Your task to perform on an android device: open app "LiveIn - Share Your Moment" (install if not already installed) and enter user name: "certifies@gmail.com" and password: "compartmented" Image 0: 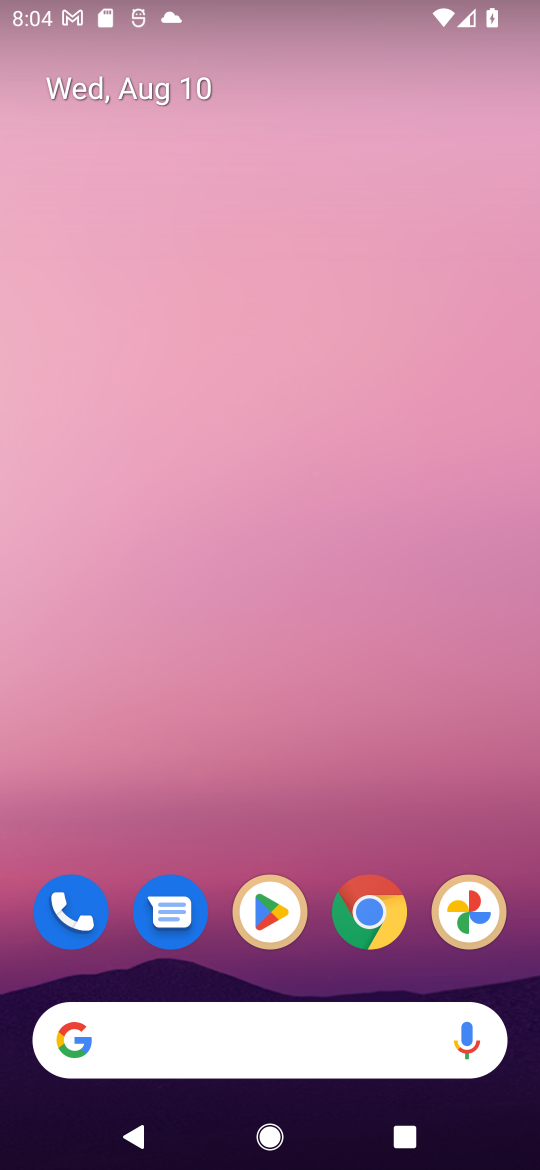
Step 0: drag from (519, 965) to (325, 45)
Your task to perform on an android device: open app "LiveIn - Share Your Moment" (install if not already installed) and enter user name: "certifies@gmail.com" and password: "compartmented" Image 1: 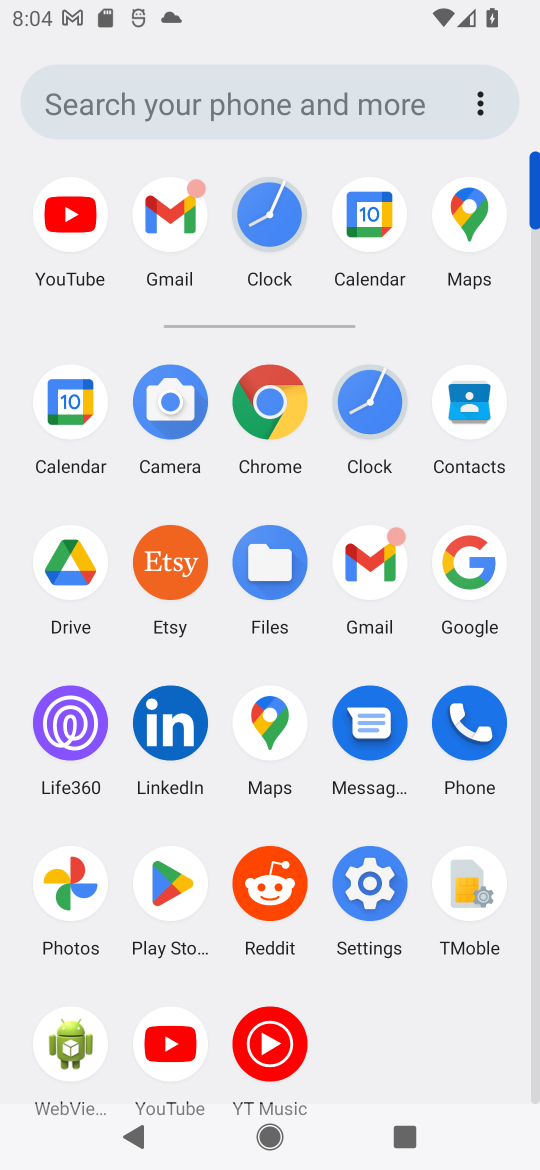
Step 1: click (165, 895)
Your task to perform on an android device: open app "LiveIn - Share Your Moment" (install if not already installed) and enter user name: "certifies@gmail.com" and password: "compartmented" Image 2: 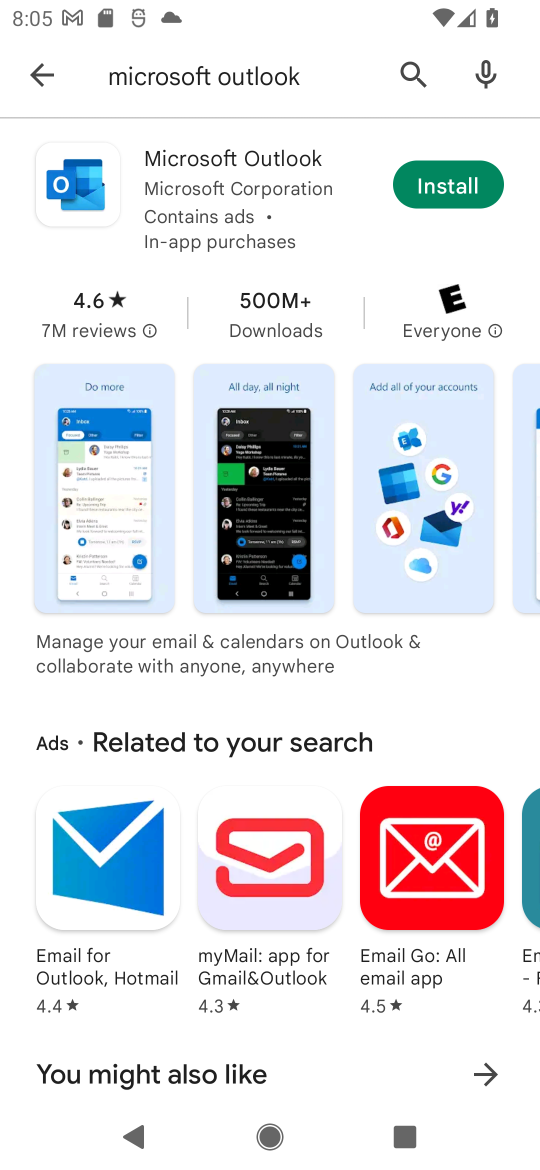
Step 2: press back button
Your task to perform on an android device: open app "LiveIn - Share Your Moment" (install if not already installed) and enter user name: "certifies@gmail.com" and password: "compartmented" Image 3: 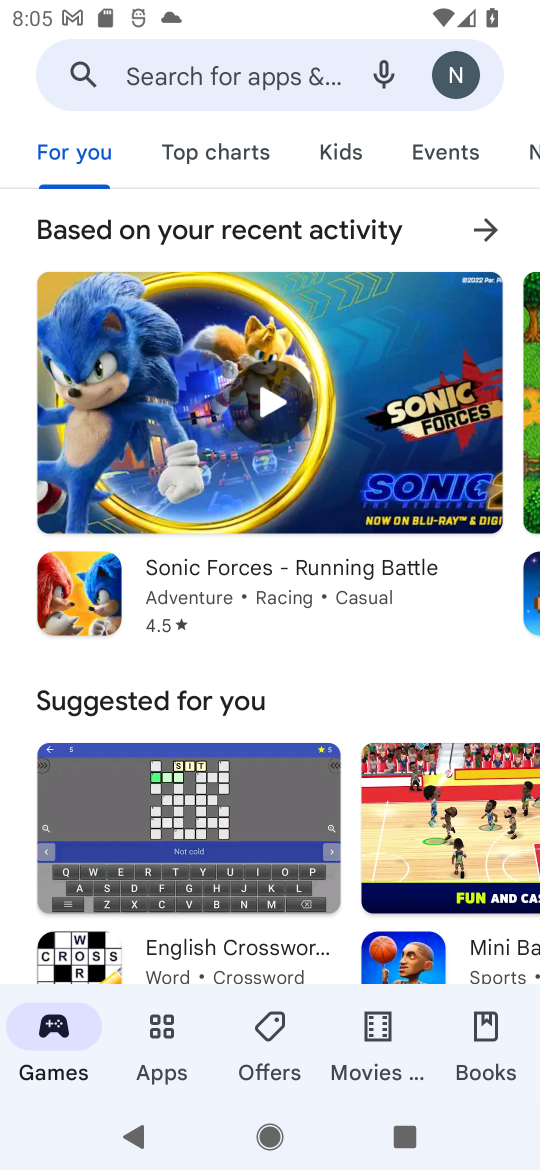
Step 3: press back button
Your task to perform on an android device: open app "LiveIn - Share Your Moment" (install if not already installed) and enter user name: "certifies@gmail.com" and password: "compartmented" Image 4: 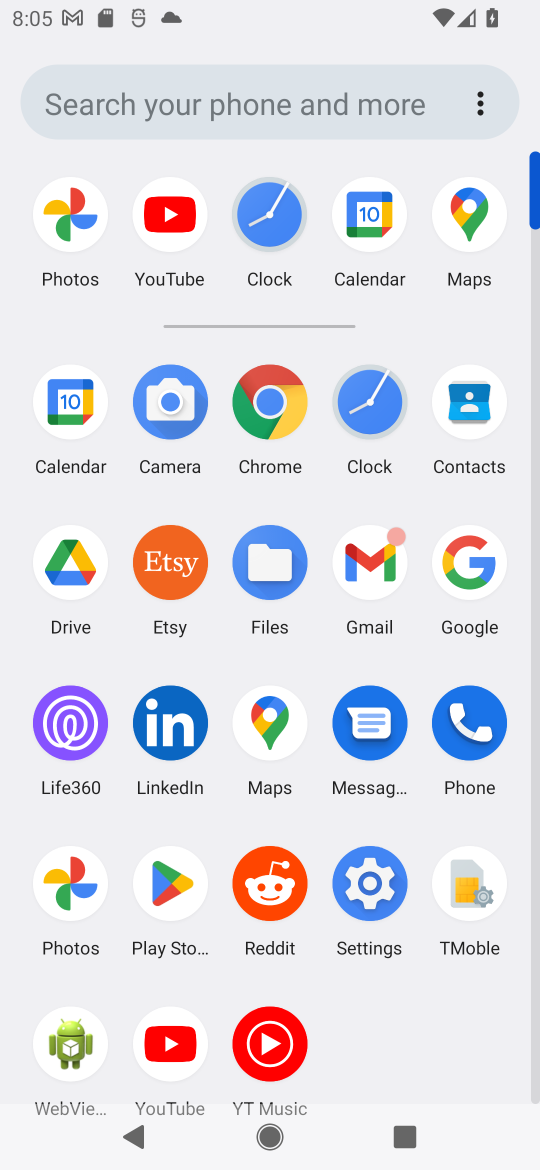
Step 4: click (177, 896)
Your task to perform on an android device: open app "LiveIn - Share Your Moment" (install if not already installed) and enter user name: "certifies@gmail.com" and password: "compartmented" Image 5: 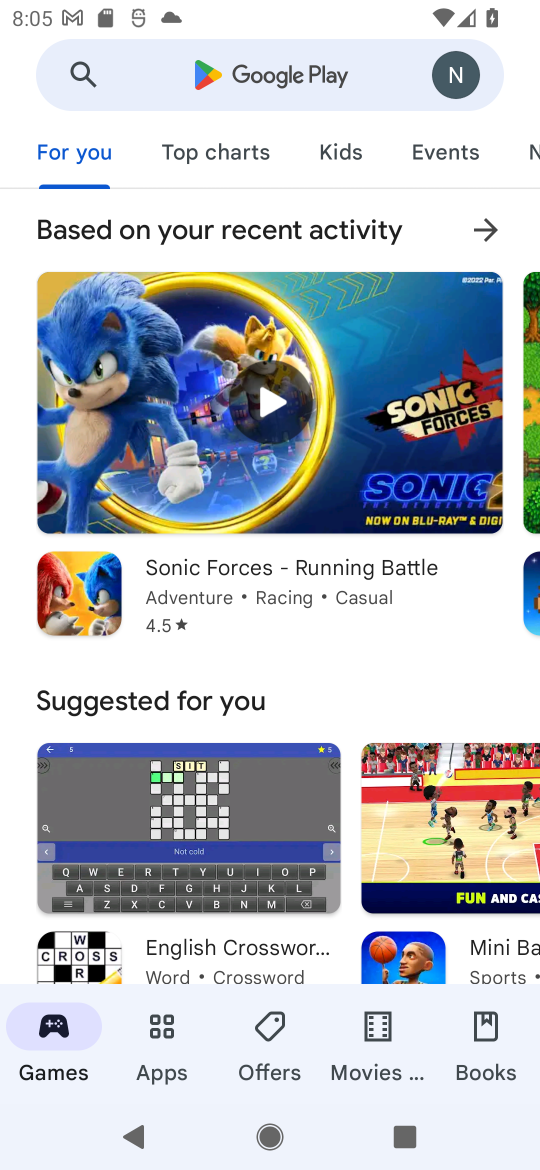
Step 5: click (215, 64)
Your task to perform on an android device: open app "LiveIn - Share Your Moment" (install if not already installed) and enter user name: "certifies@gmail.com" and password: "compartmented" Image 6: 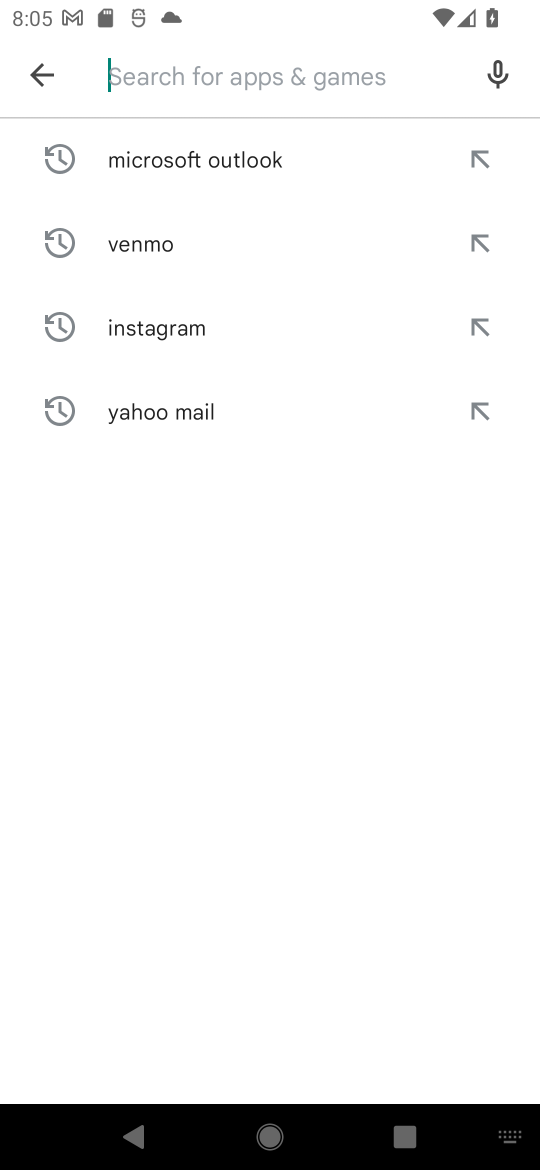
Step 6: type "LiveIn - Share Your Moment"
Your task to perform on an android device: open app "LiveIn - Share Your Moment" (install if not already installed) and enter user name: "certifies@gmail.com" and password: "compartmented" Image 7: 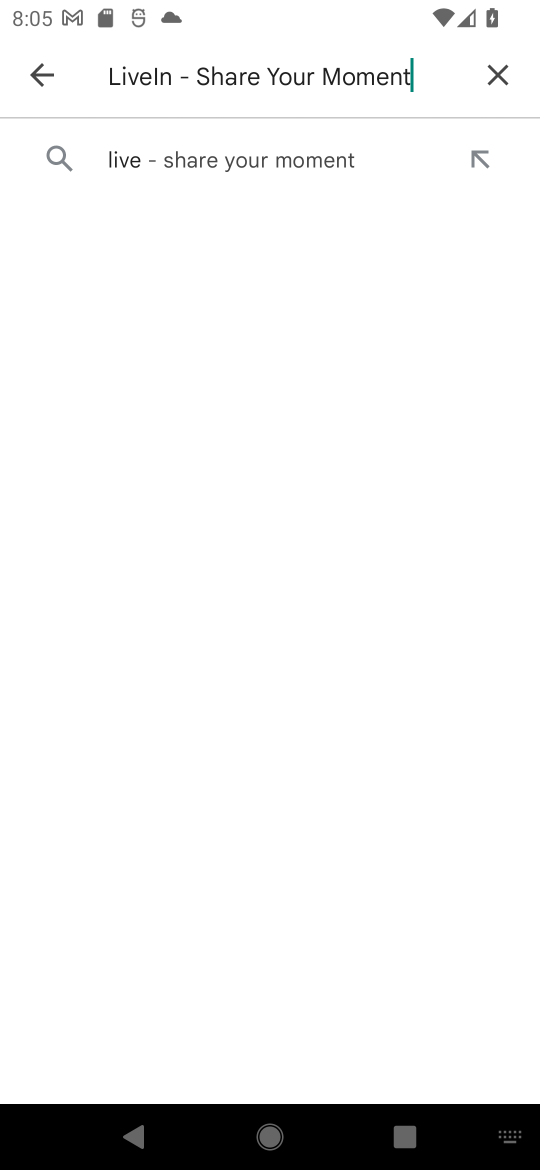
Step 7: click (285, 171)
Your task to perform on an android device: open app "LiveIn - Share Your Moment" (install if not already installed) and enter user name: "certifies@gmail.com" and password: "compartmented" Image 8: 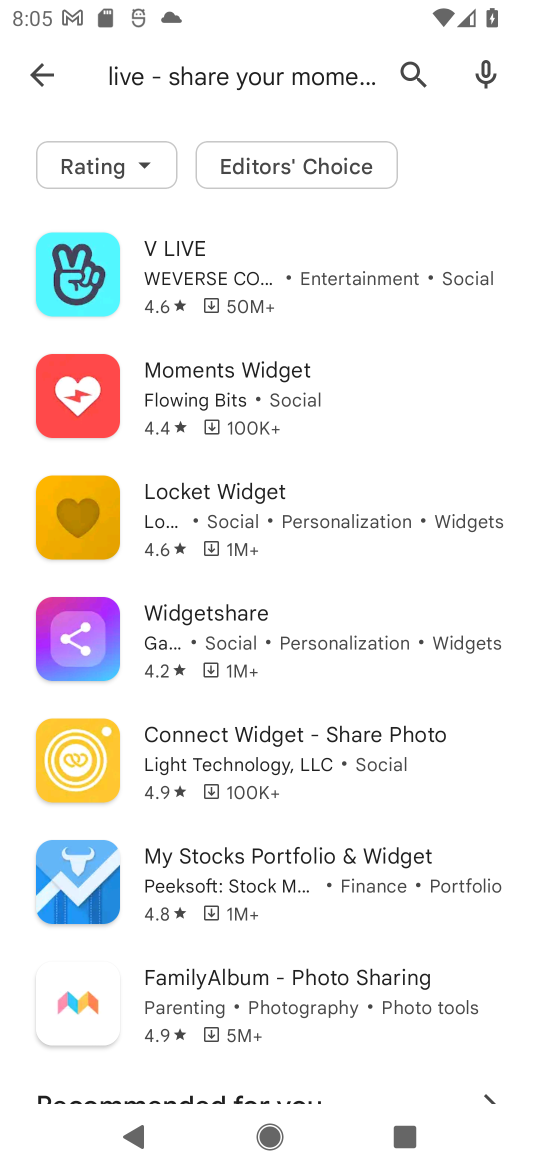
Step 8: task complete